Your task to perform on an android device: set an alarm Image 0: 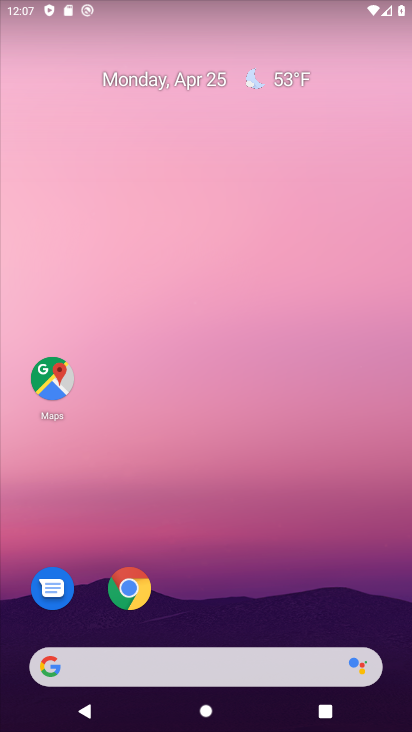
Step 0: drag from (215, 611) to (167, 173)
Your task to perform on an android device: set an alarm Image 1: 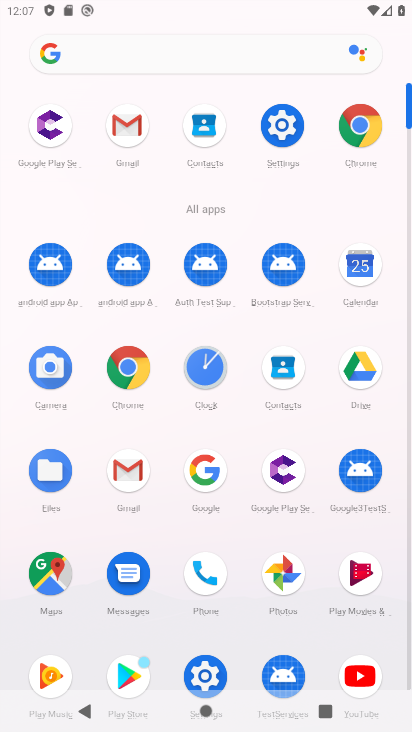
Step 1: click (202, 377)
Your task to perform on an android device: set an alarm Image 2: 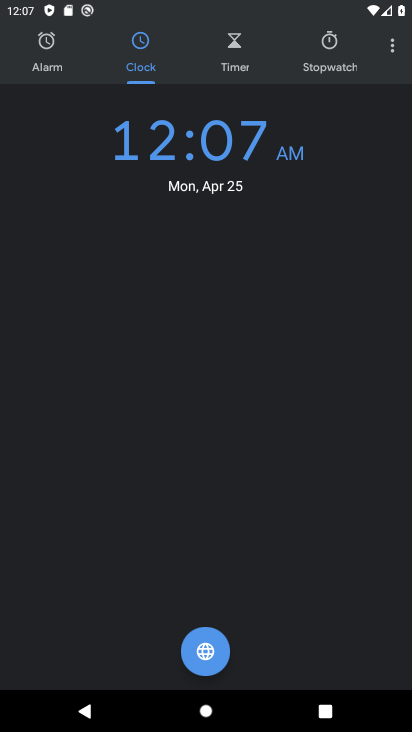
Step 2: click (66, 65)
Your task to perform on an android device: set an alarm Image 3: 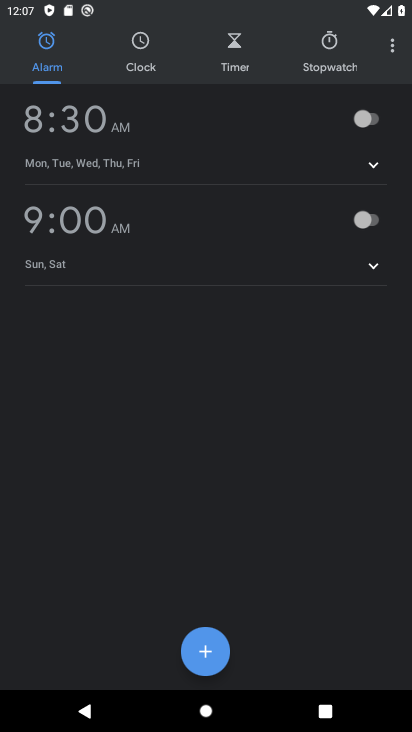
Step 3: click (218, 656)
Your task to perform on an android device: set an alarm Image 4: 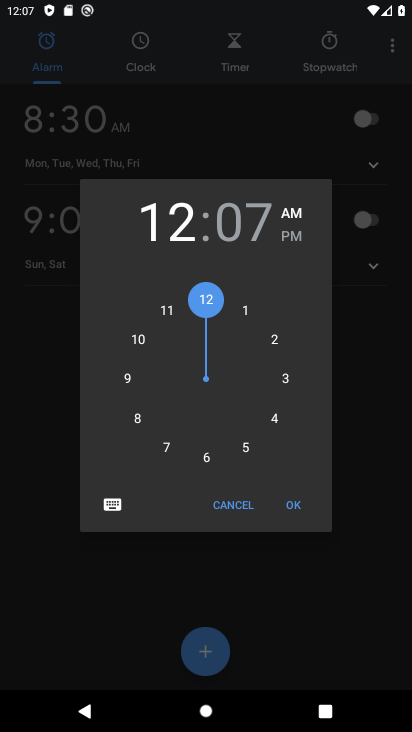
Step 4: click (211, 457)
Your task to perform on an android device: set an alarm Image 5: 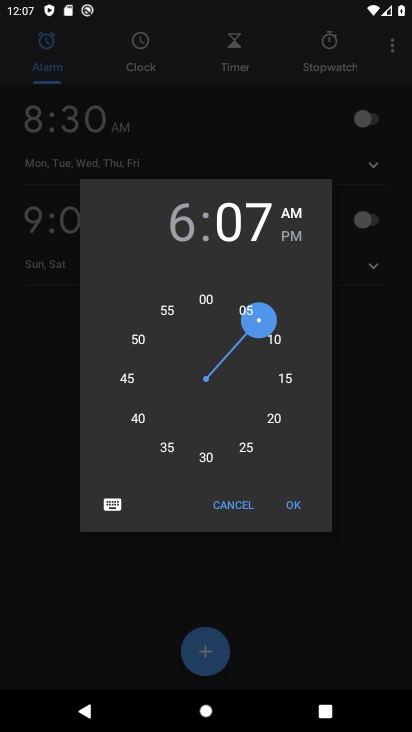
Step 5: click (299, 509)
Your task to perform on an android device: set an alarm Image 6: 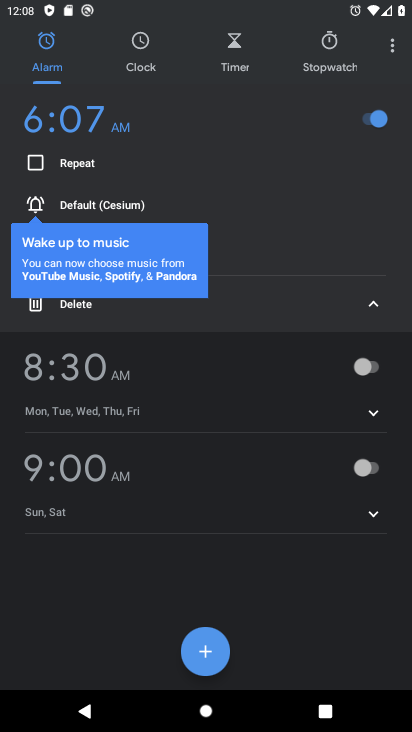
Step 6: task complete